Your task to perform on an android device: What's on my calendar today? Image 0: 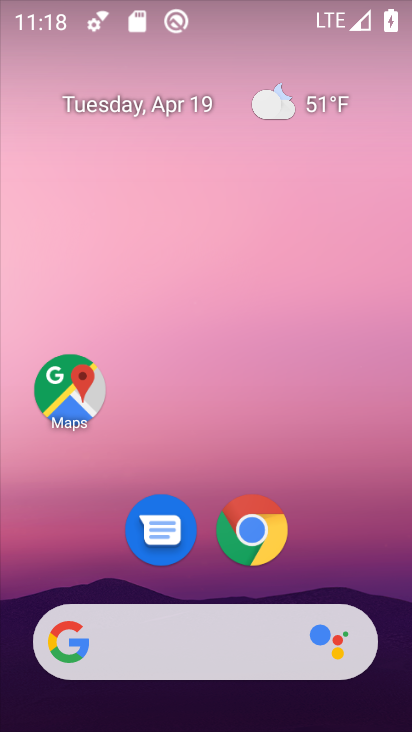
Step 0: drag from (170, 625) to (336, 45)
Your task to perform on an android device: What's on my calendar today? Image 1: 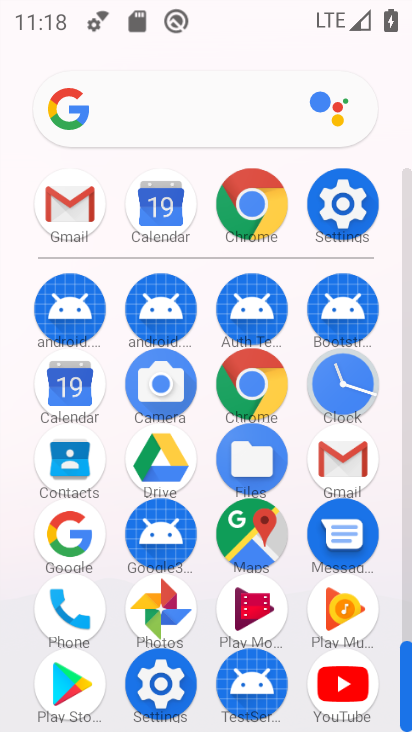
Step 1: click (153, 213)
Your task to perform on an android device: What's on my calendar today? Image 2: 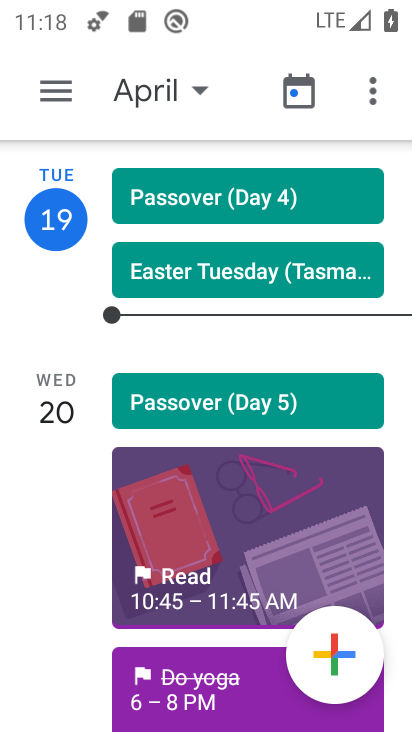
Step 2: click (158, 224)
Your task to perform on an android device: What's on my calendar today? Image 3: 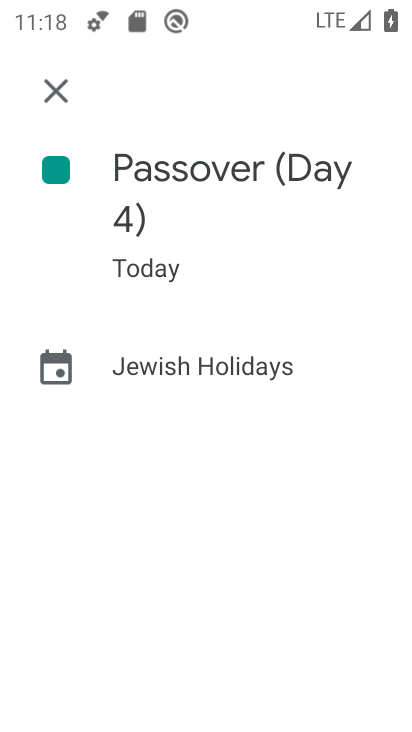
Step 3: task complete